Your task to perform on an android device: Open wifi settings Image 0: 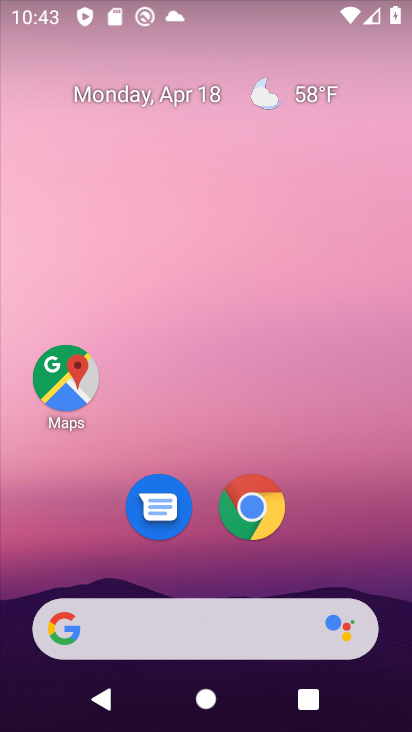
Step 0: drag from (274, 15) to (239, 500)
Your task to perform on an android device: Open wifi settings Image 1: 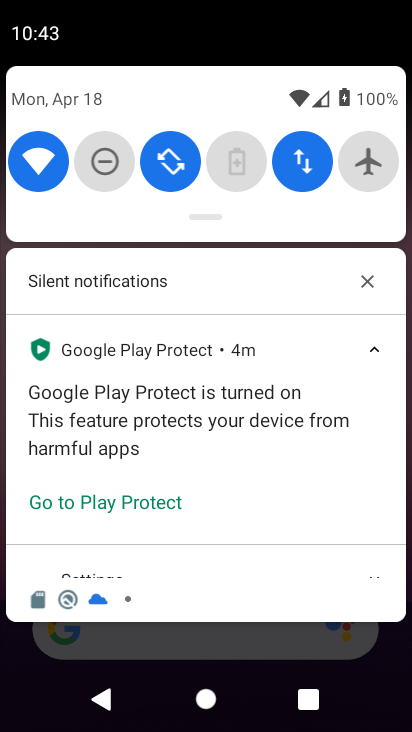
Step 1: click (34, 189)
Your task to perform on an android device: Open wifi settings Image 2: 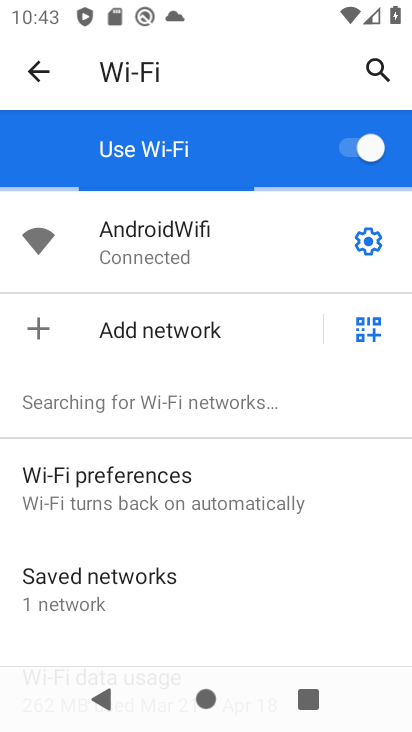
Step 2: task complete